Your task to perform on an android device: open app "Google Docs" Image 0: 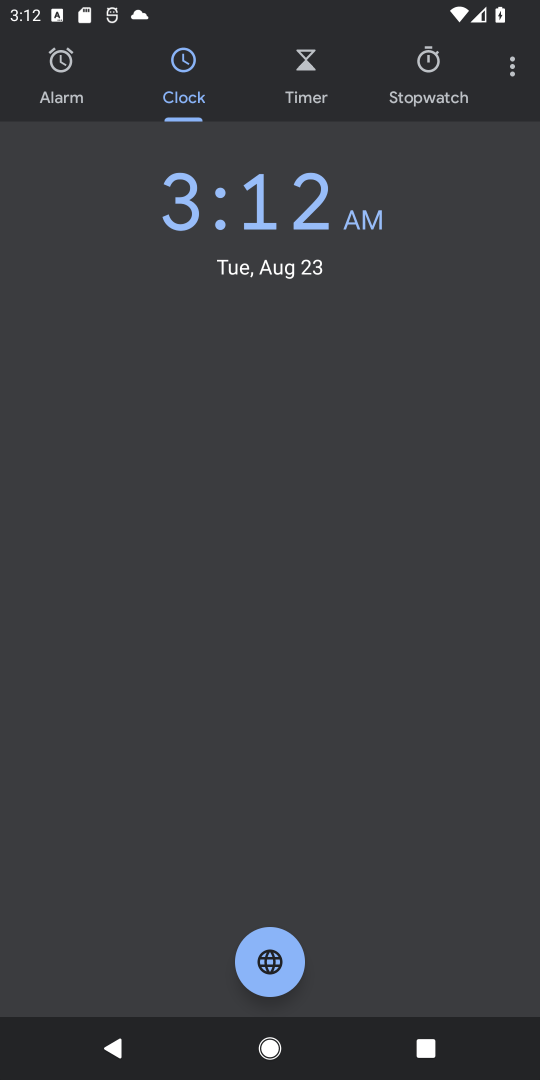
Step 0: press home button
Your task to perform on an android device: open app "Google Docs" Image 1: 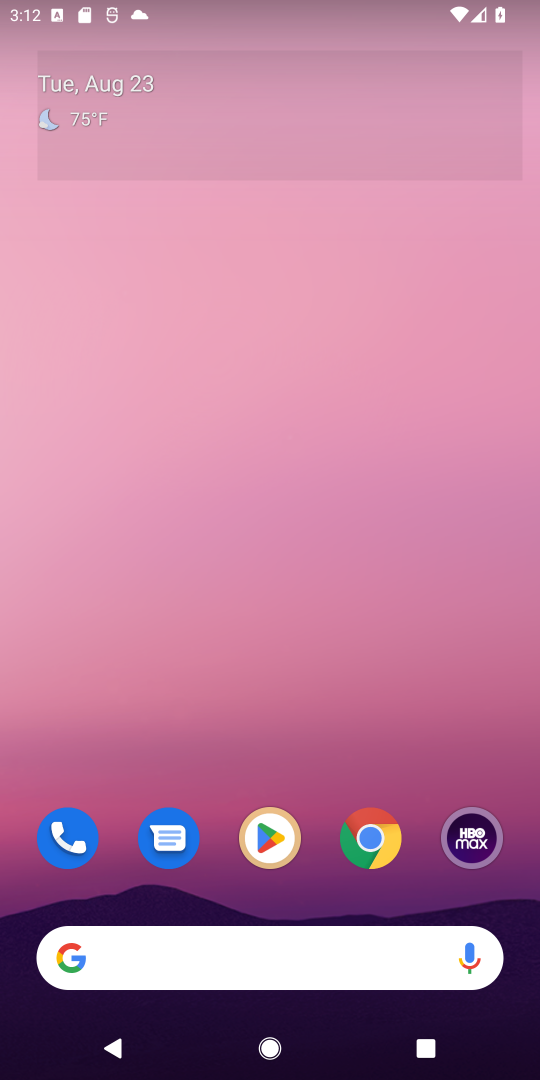
Step 1: click (260, 848)
Your task to perform on an android device: open app "Google Docs" Image 2: 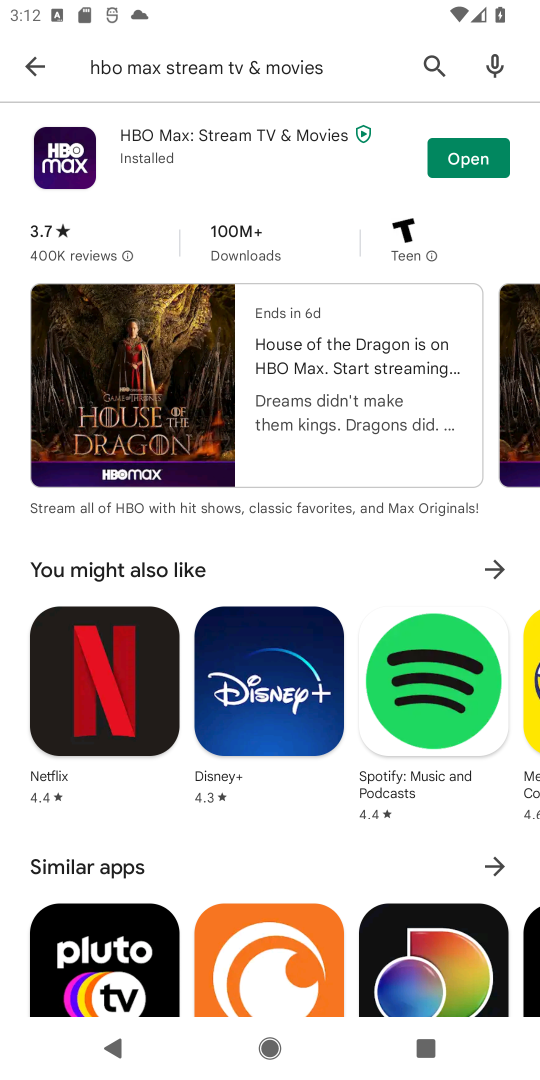
Step 2: click (23, 67)
Your task to perform on an android device: open app "Google Docs" Image 3: 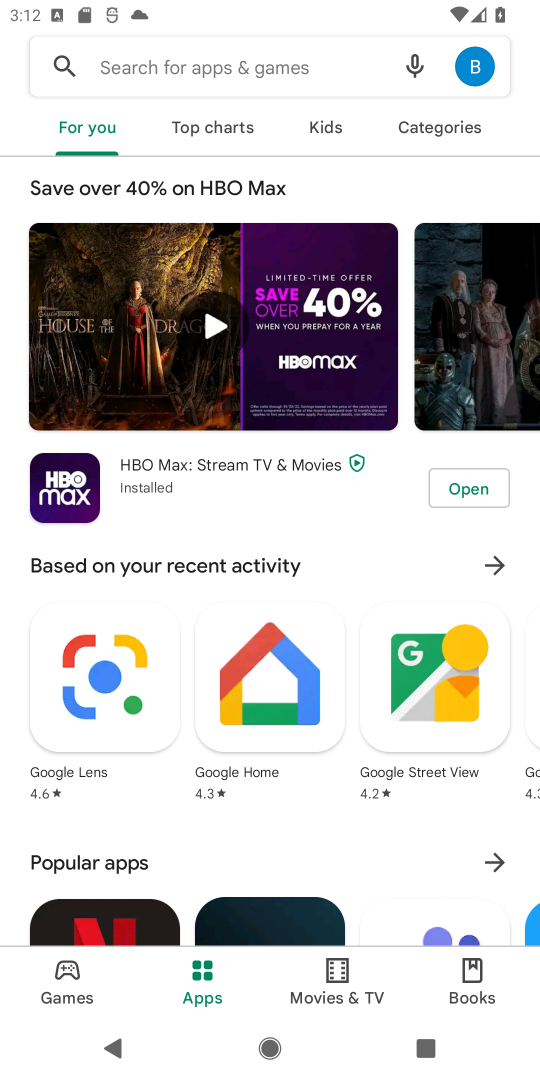
Step 3: click (155, 58)
Your task to perform on an android device: open app "Google Docs" Image 4: 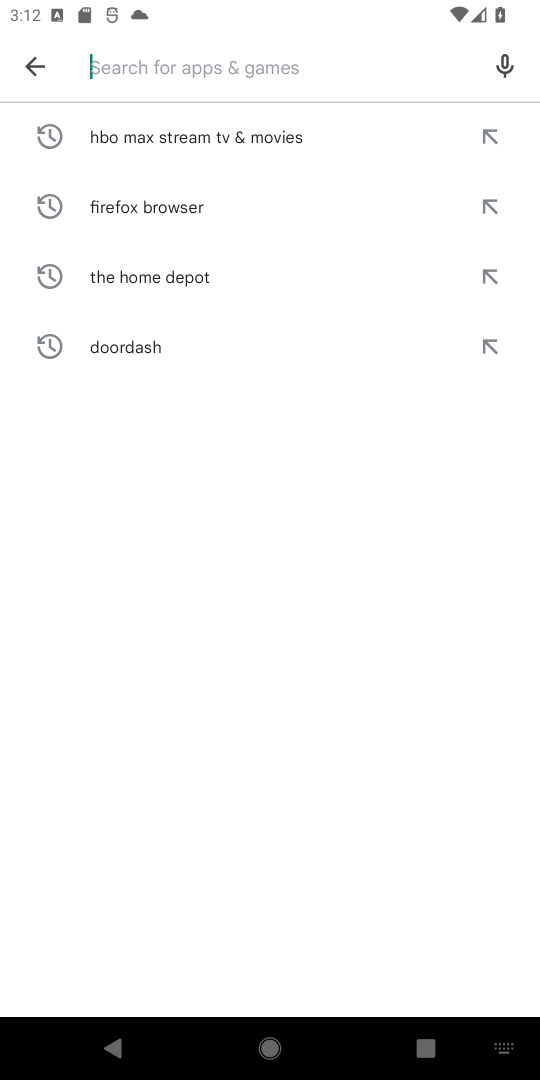
Step 4: type "Google Docs"
Your task to perform on an android device: open app "Google Docs" Image 5: 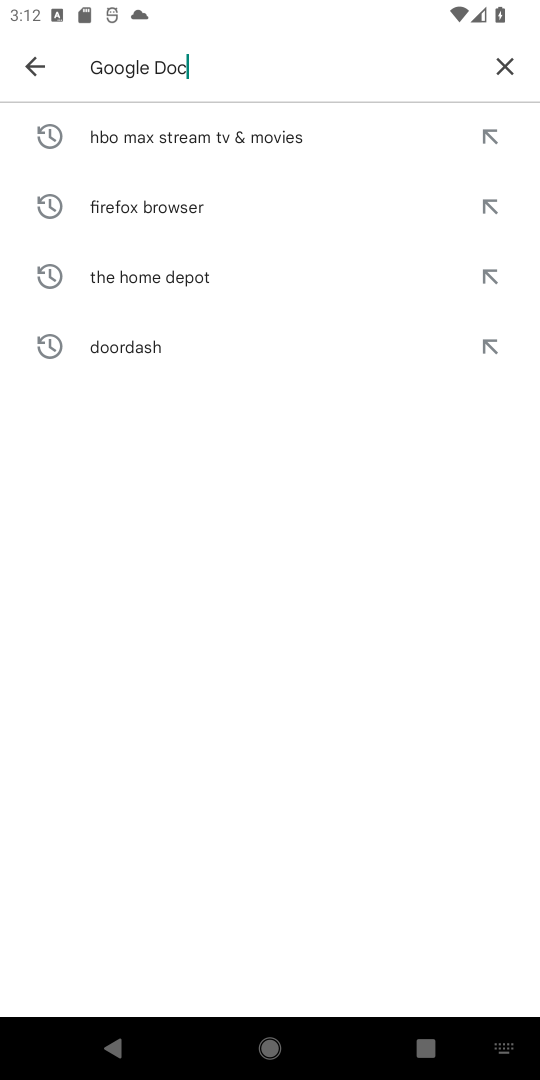
Step 5: type ""
Your task to perform on an android device: open app "Google Docs" Image 6: 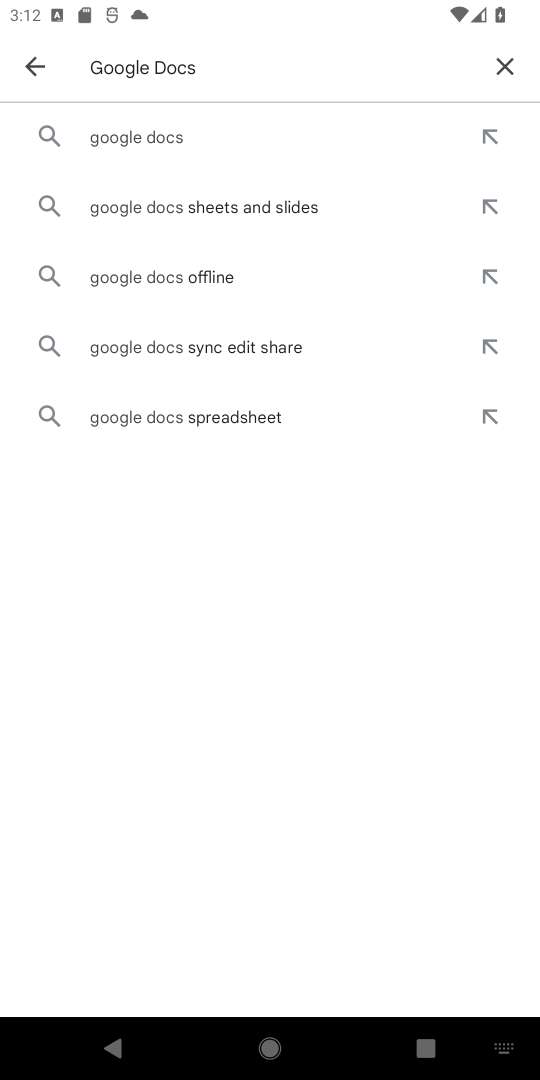
Step 6: click (110, 149)
Your task to perform on an android device: open app "Google Docs" Image 7: 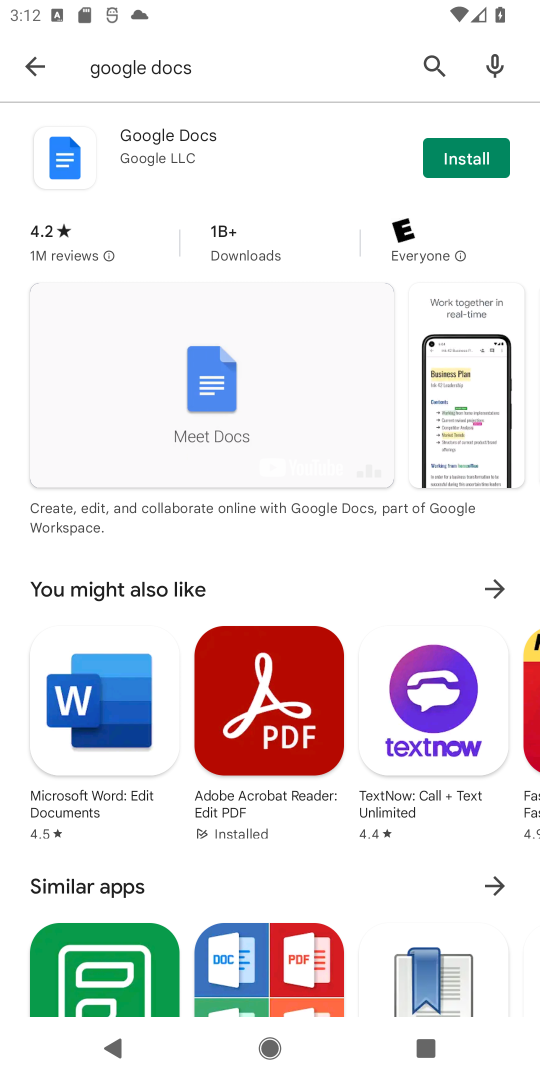
Step 7: task complete